Your task to perform on an android device: Search for "apple airpods pro" on bestbuy.com, select the first entry, and add it to the cart. Image 0: 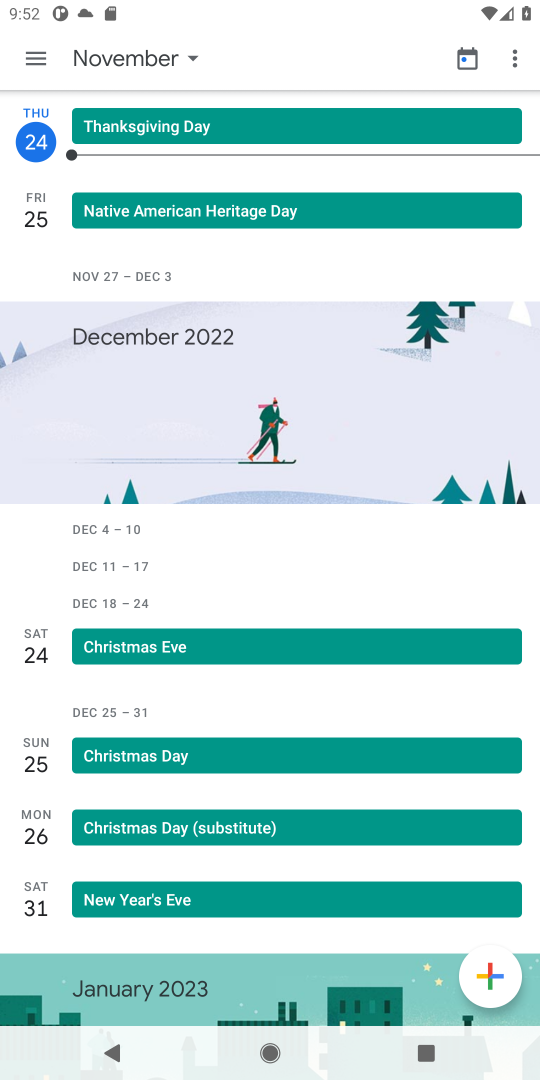
Step 0: press home button
Your task to perform on an android device: Search for "apple airpods pro" on bestbuy.com, select the first entry, and add it to the cart. Image 1: 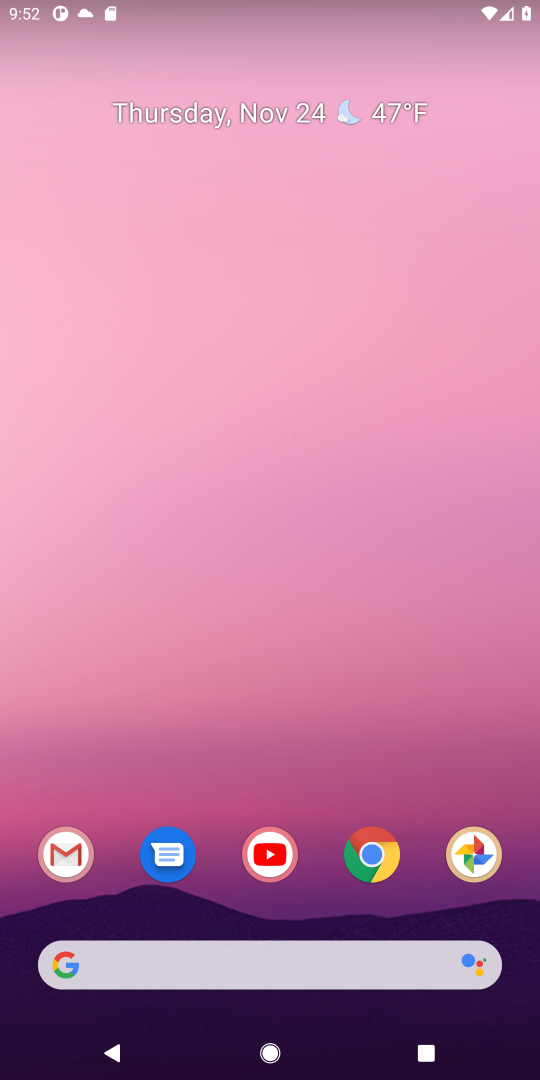
Step 1: click (368, 849)
Your task to perform on an android device: Search for "apple airpods pro" on bestbuy.com, select the first entry, and add it to the cart. Image 2: 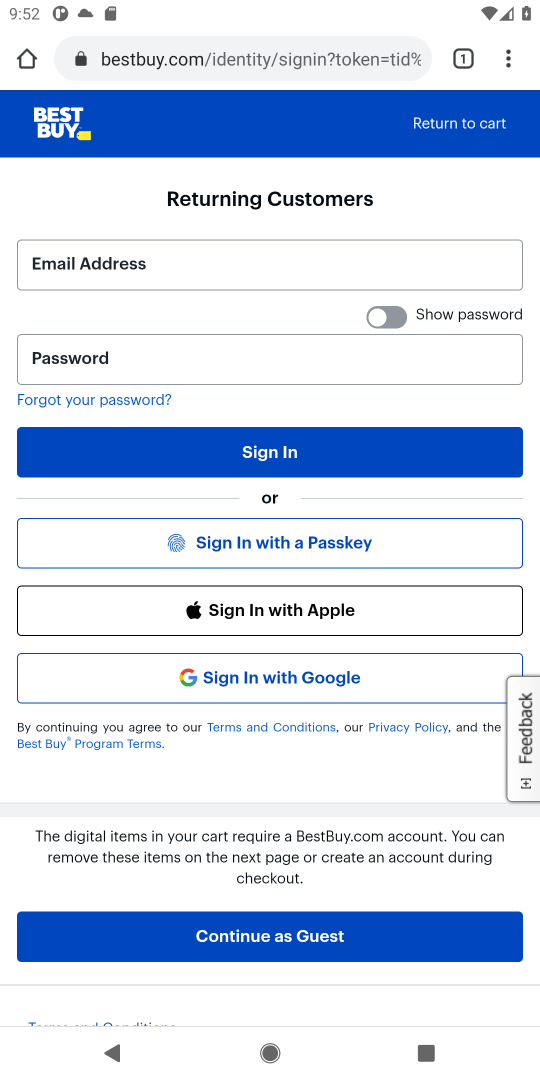
Step 2: click (432, 127)
Your task to perform on an android device: Search for "apple airpods pro" on bestbuy.com, select the first entry, and add it to the cart. Image 3: 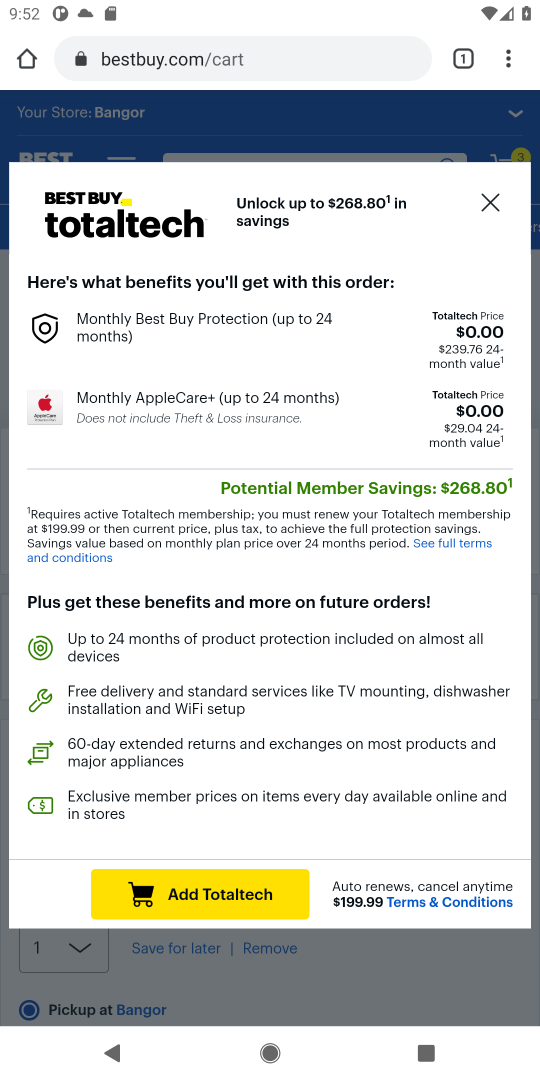
Step 3: click (494, 206)
Your task to perform on an android device: Search for "apple airpods pro" on bestbuy.com, select the first entry, and add it to the cart. Image 4: 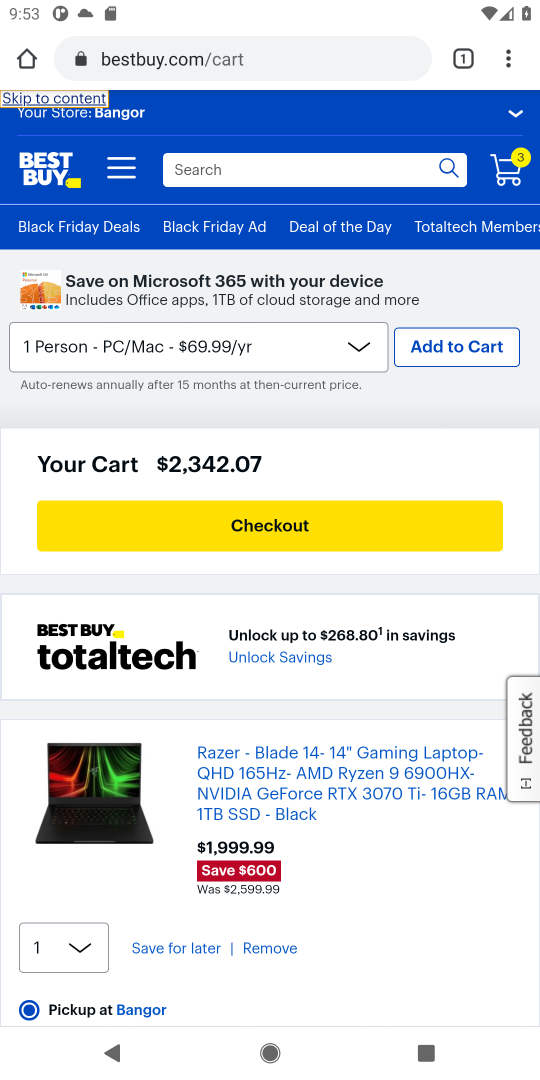
Step 4: click (302, 167)
Your task to perform on an android device: Search for "apple airpods pro" on bestbuy.com, select the first entry, and add it to the cart. Image 5: 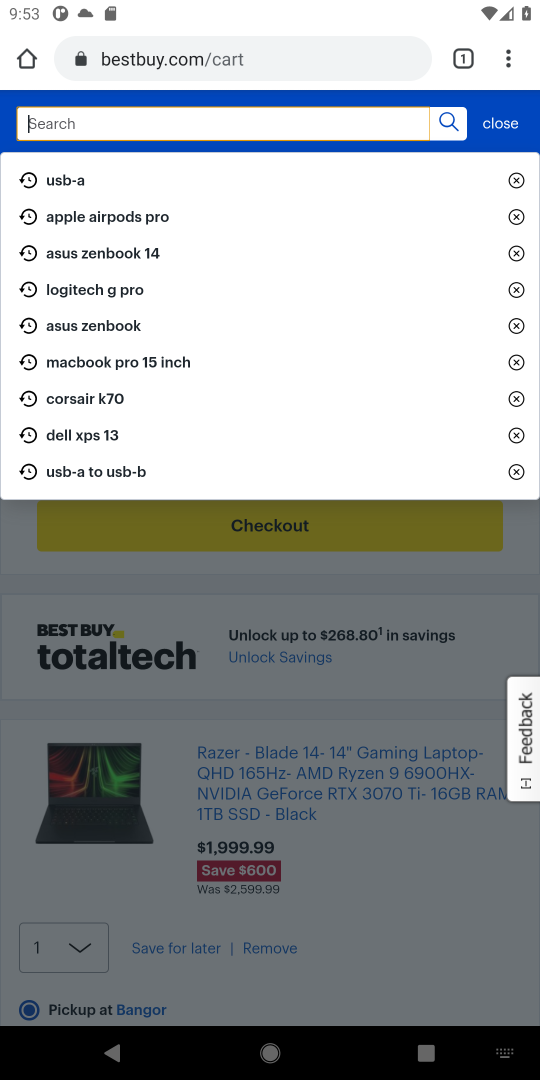
Step 5: type "apple airpods pro"
Your task to perform on an android device: Search for "apple airpods pro" on bestbuy.com, select the first entry, and add it to the cart. Image 6: 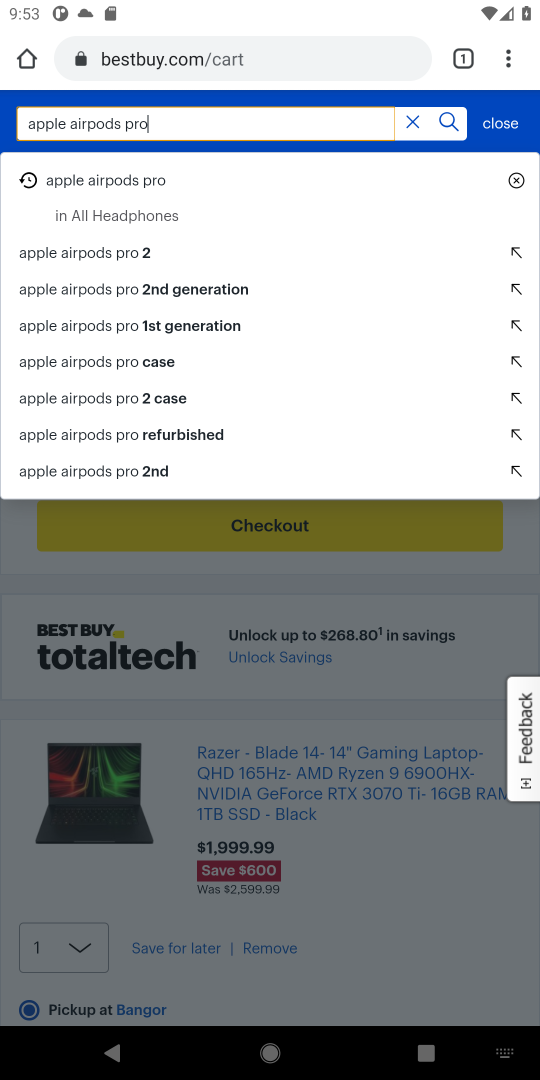
Step 6: click (99, 189)
Your task to perform on an android device: Search for "apple airpods pro" on bestbuy.com, select the first entry, and add it to the cart. Image 7: 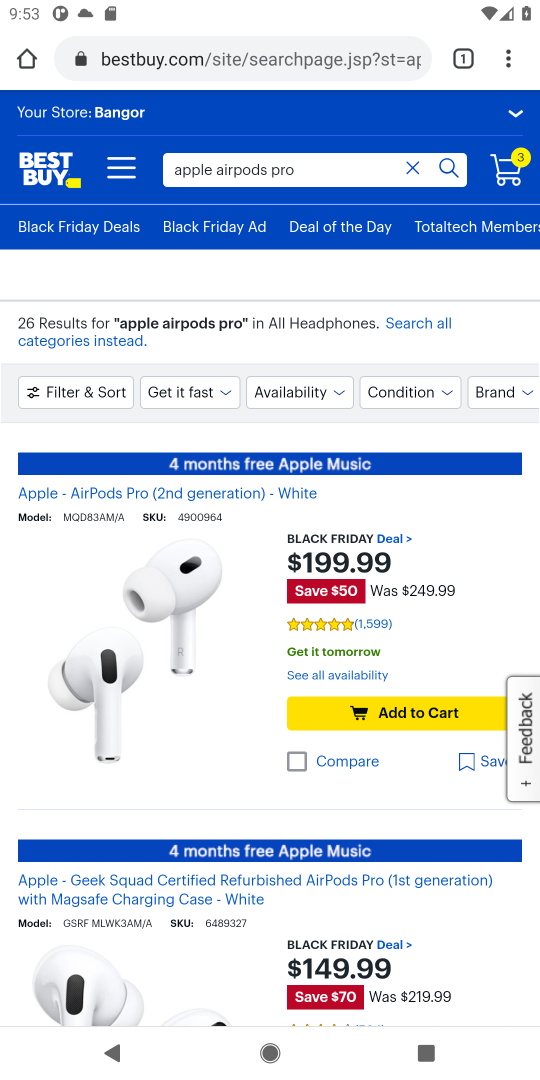
Step 7: click (385, 714)
Your task to perform on an android device: Search for "apple airpods pro" on bestbuy.com, select the first entry, and add it to the cart. Image 8: 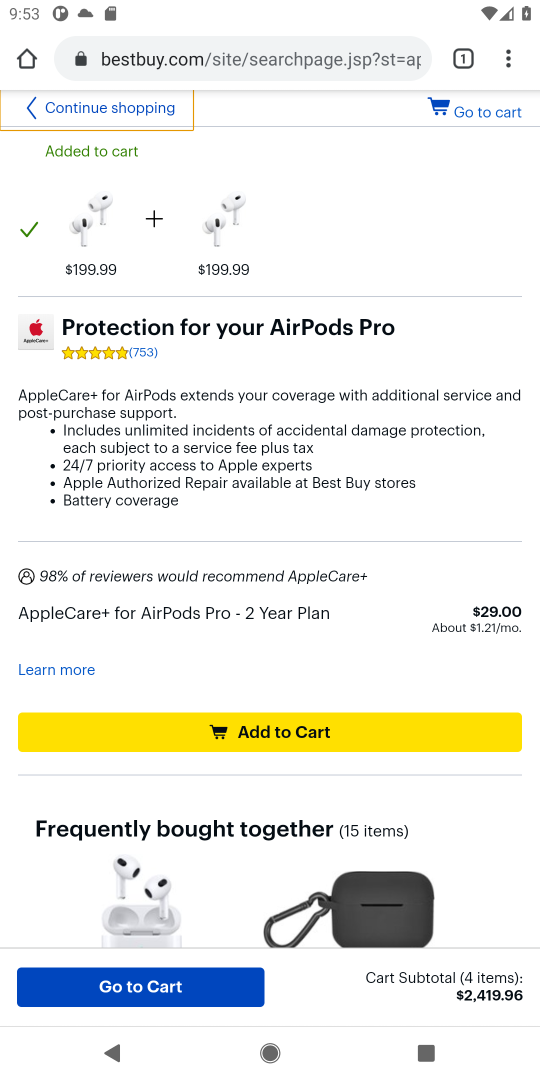
Step 8: task complete